Your task to perform on an android device: turn notification dots on Image 0: 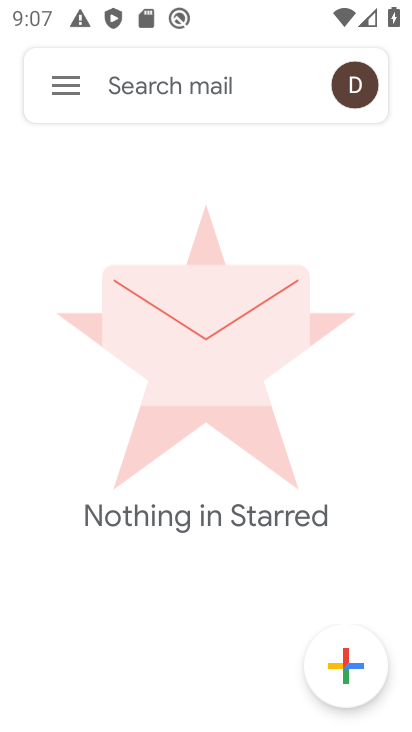
Step 0: press home button
Your task to perform on an android device: turn notification dots on Image 1: 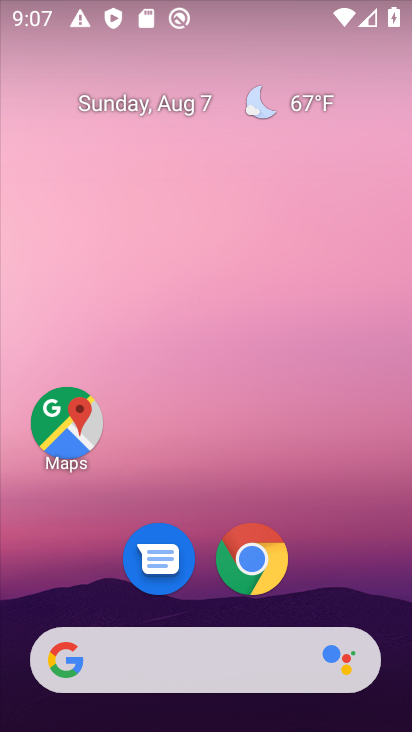
Step 1: drag from (389, 570) to (311, 128)
Your task to perform on an android device: turn notification dots on Image 2: 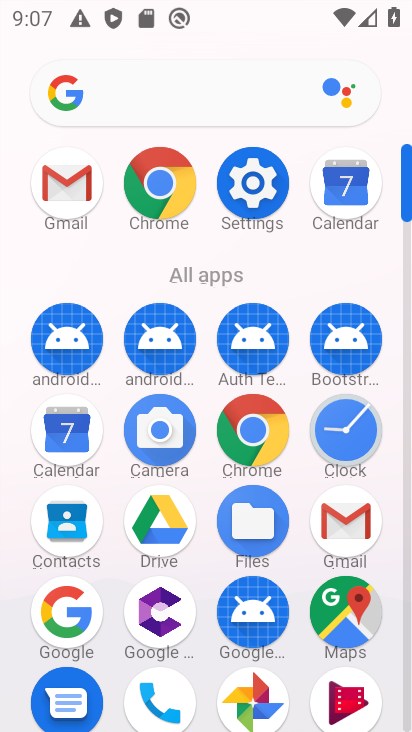
Step 2: click (259, 174)
Your task to perform on an android device: turn notification dots on Image 3: 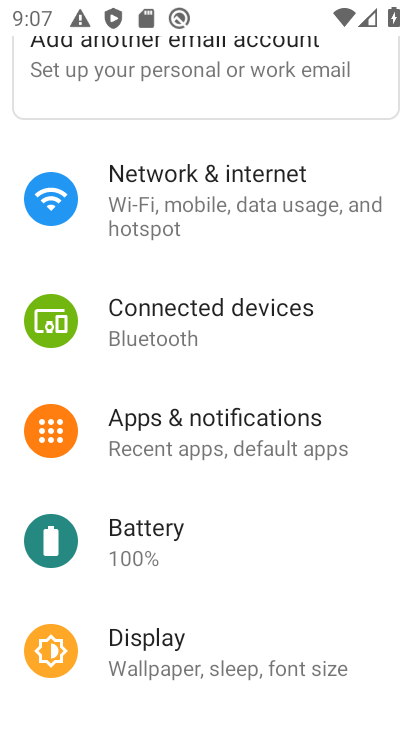
Step 3: click (275, 448)
Your task to perform on an android device: turn notification dots on Image 4: 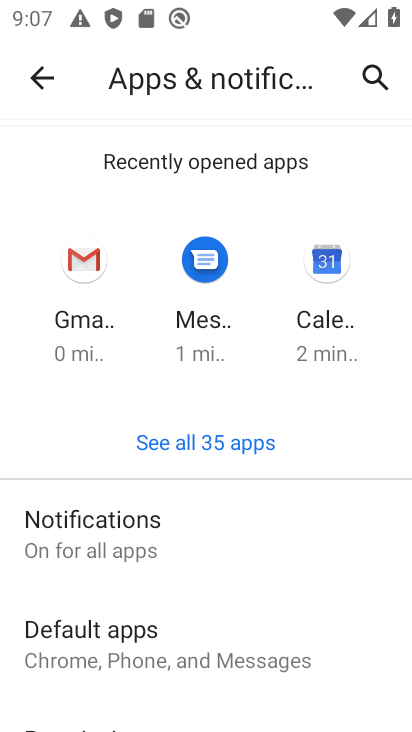
Step 4: click (236, 521)
Your task to perform on an android device: turn notification dots on Image 5: 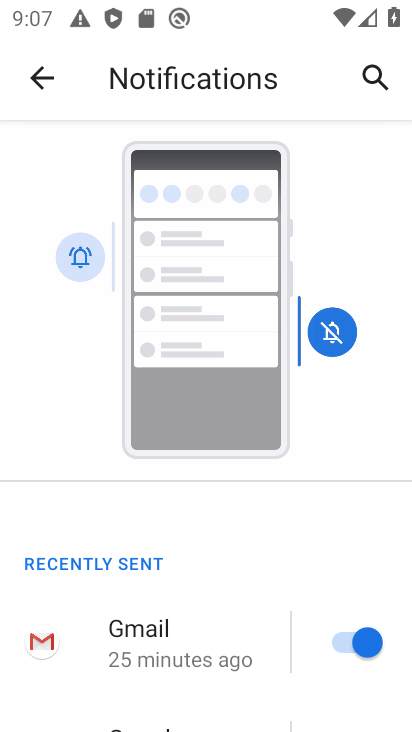
Step 5: drag from (267, 566) to (232, 251)
Your task to perform on an android device: turn notification dots on Image 6: 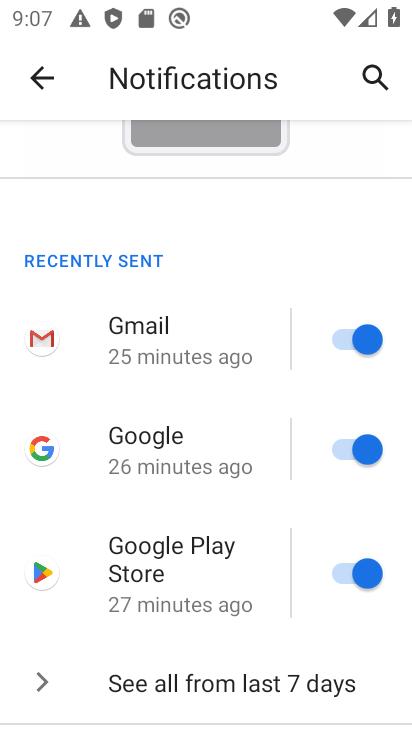
Step 6: drag from (283, 671) to (276, 358)
Your task to perform on an android device: turn notification dots on Image 7: 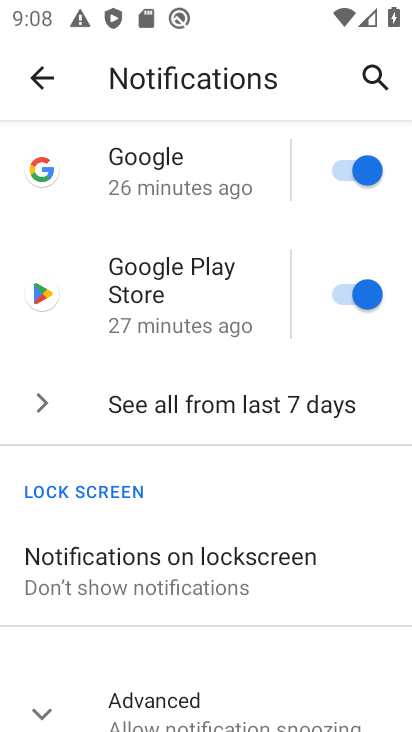
Step 7: click (242, 693)
Your task to perform on an android device: turn notification dots on Image 8: 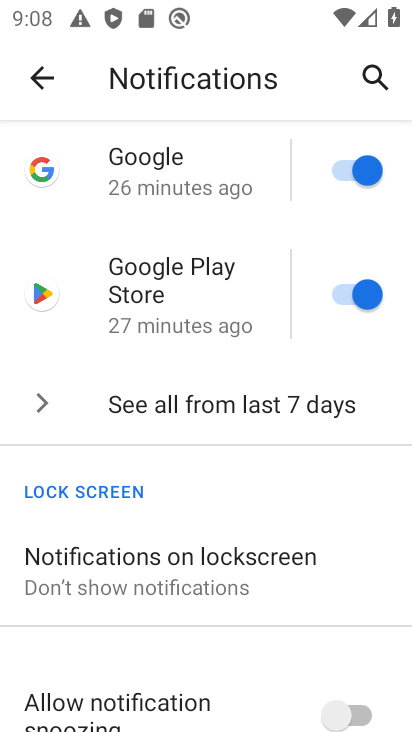
Step 8: task complete